Your task to perform on an android device: uninstall "Life360: Find Family & Friends" Image 0: 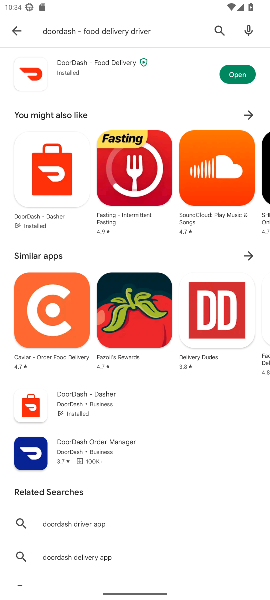
Step 0: click (218, 25)
Your task to perform on an android device: uninstall "Life360: Find Family & Friends" Image 1: 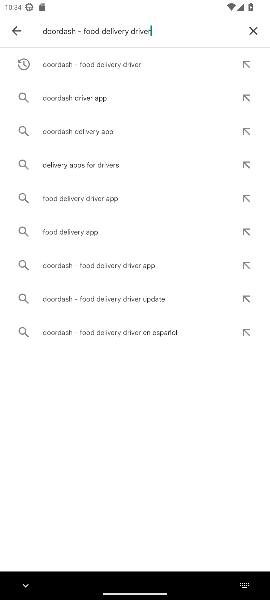
Step 1: click (249, 29)
Your task to perform on an android device: uninstall "Life360: Find Family & Friends" Image 2: 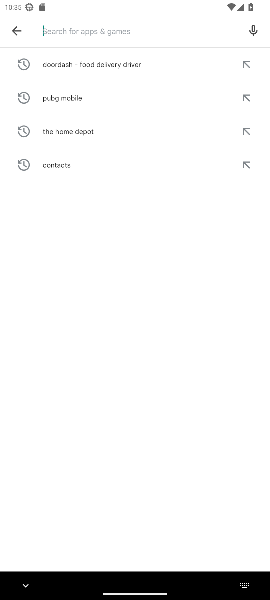
Step 2: type "life360: find family & friends"
Your task to perform on an android device: uninstall "Life360: Find Family & Friends" Image 3: 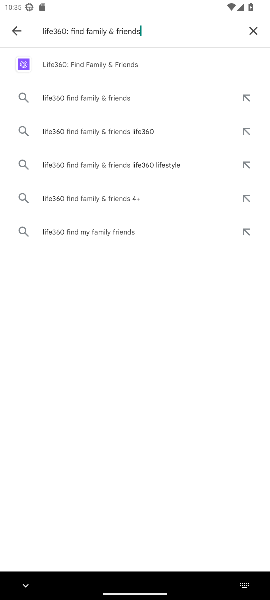
Step 3: click (135, 64)
Your task to perform on an android device: uninstall "Life360: Find Family & Friends" Image 4: 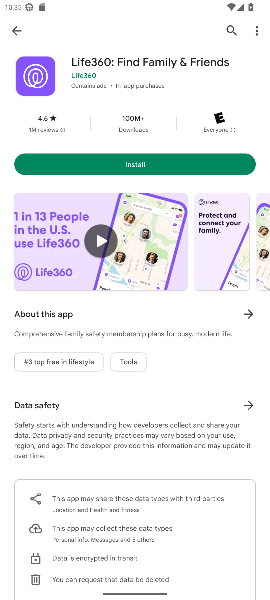
Step 4: task complete